Your task to perform on an android device: turn off improve location accuracy Image 0: 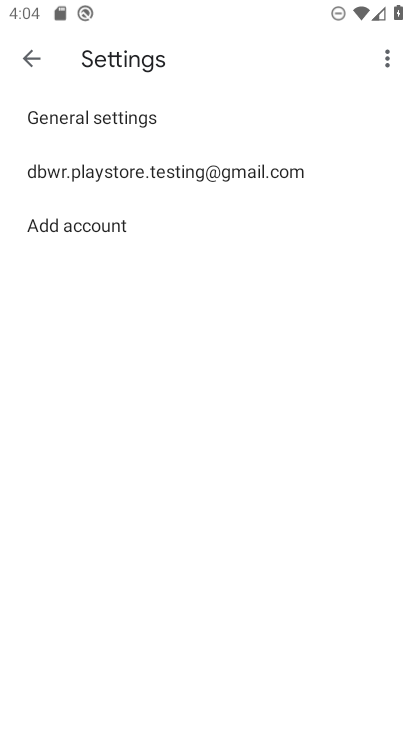
Step 0: press home button
Your task to perform on an android device: turn off improve location accuracy Image 1: 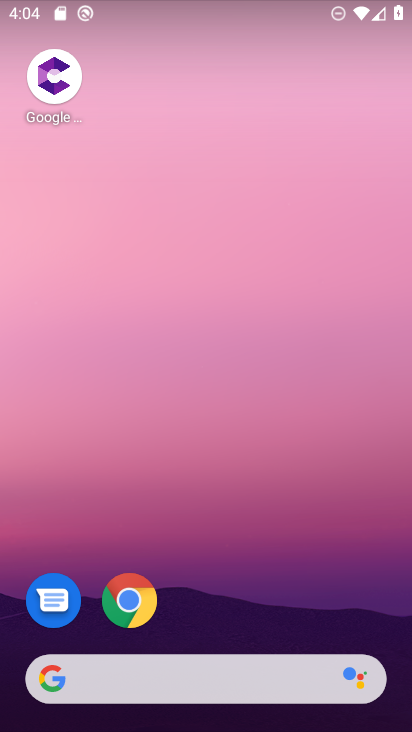
Step 1: drag from (225, 518) to (236, 2)
Your task to perform on an android device: turn off improve location accuracy Image 2: 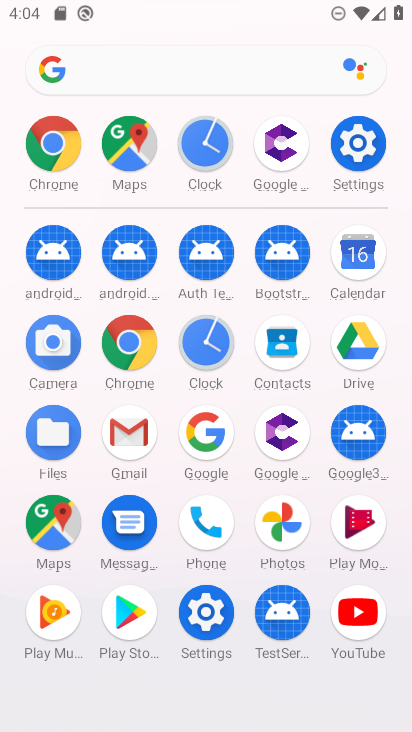
Step 2: click (366, 138)
Your task to perform on an android device: turn off improve location accuracy Image 3: 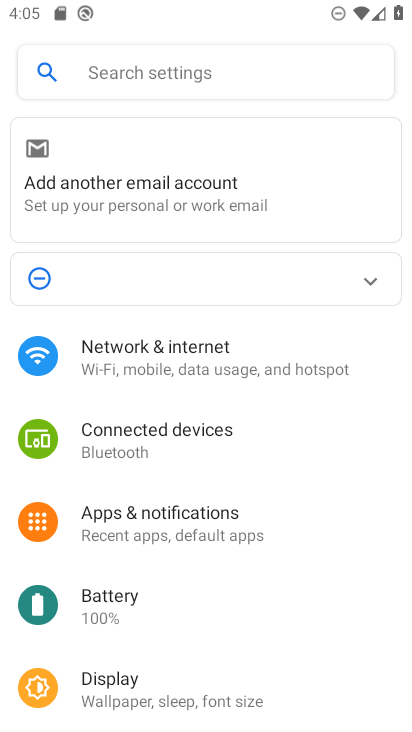
Step 3: drag from (129, 608) to (132, 108)
Your task to perform on an android device: turn off improve location accuracy Image 4: 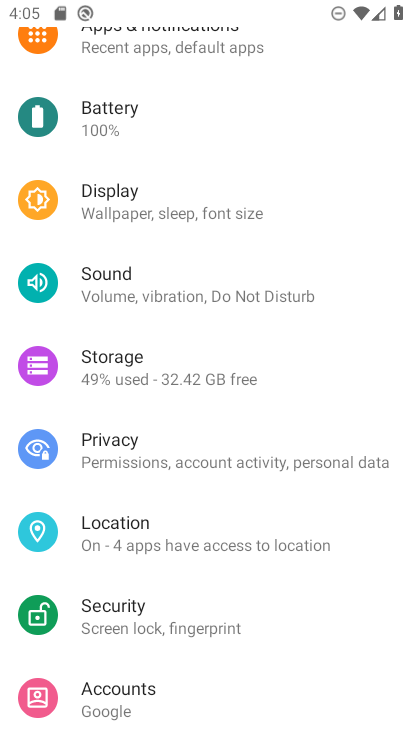
Step 4: click (133, 528)
Your task to perform on an android device: turn off improve location accuracy Image 5: 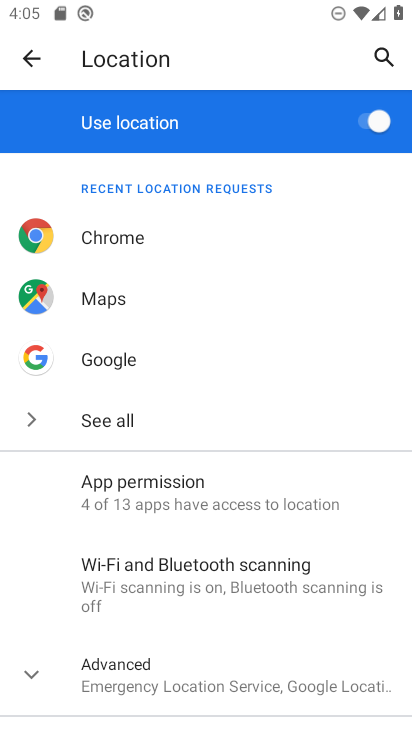
Step 5: drag from (213, 555) to (214, 99)
Your task to perform on an android device: turn off improve location accuracy Image 6: 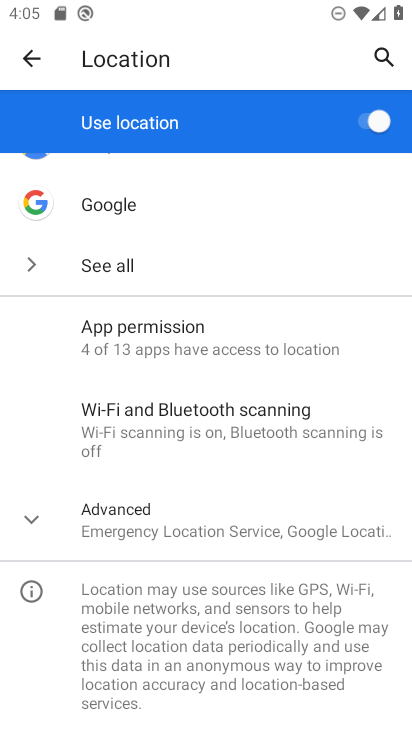
Step 6: click (110, 536)
Your task to perform on an android device: turn off improve location accuracy Image 7: 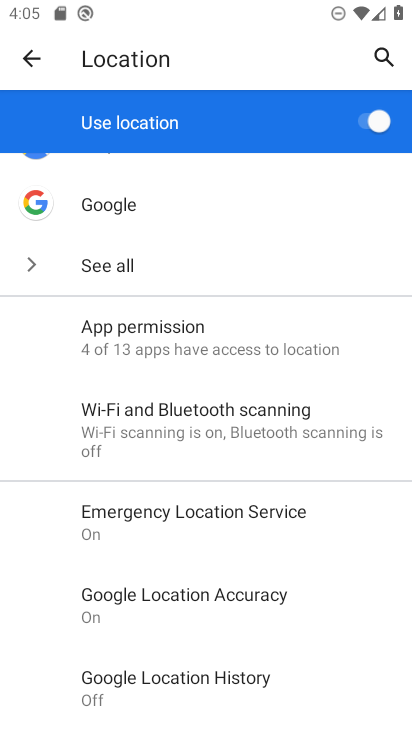
Step 7: click (215, 599)
Your task to perform on an android device: turn off improve location accuracy Image 8: 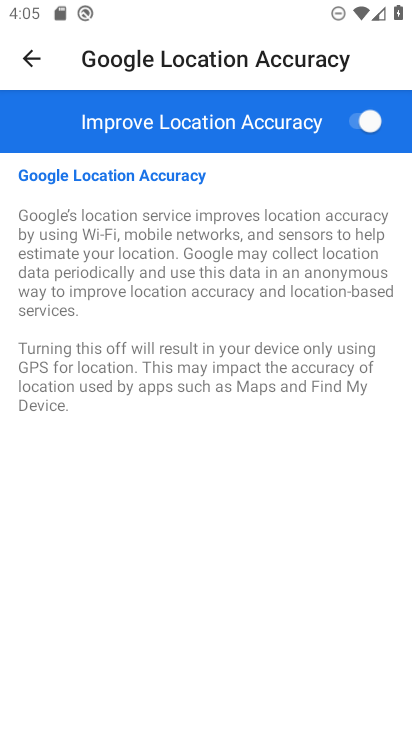
Step 8: click (363, 101)
Your task to perform on an android device: turn off improve location accuracy Image 9: 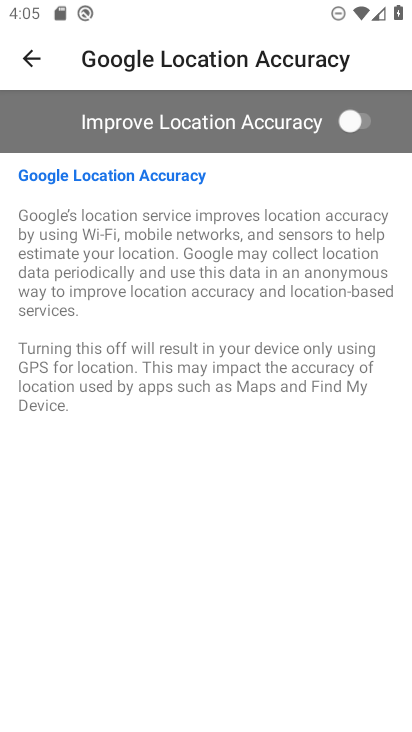
Step 9: task complete